Your task to perform on an android device: find which apps use the phone's location Image 0: 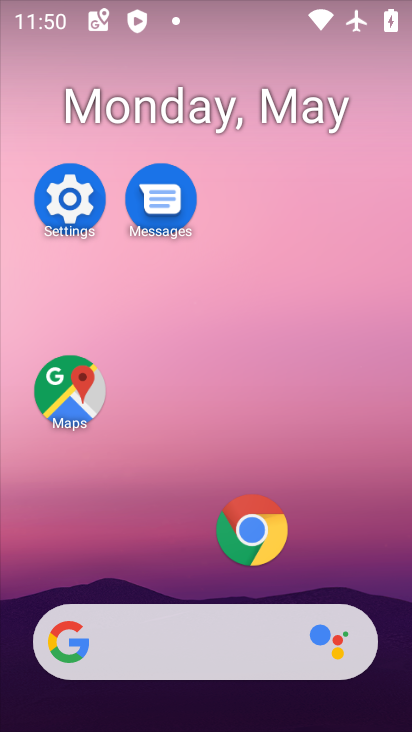
Step 0: click (385, 400)
Your task to perform on an android device: find which apps use the phone's location Image 1: 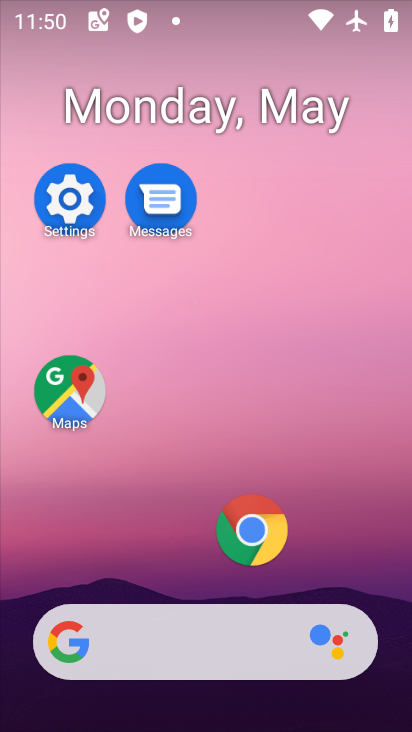
Step 1: drag from (104, 535) to (251, 32)
Your task to perform on an android device: find which apps use the phone's location Image 2: 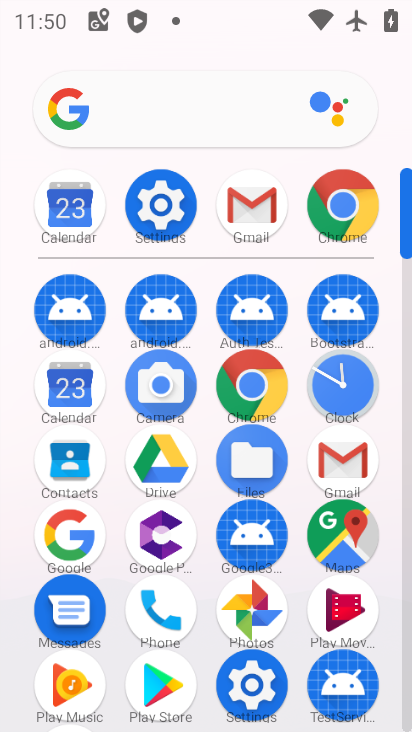
Step 2: click (248, 689)
Your task to perform on an android device: find which apps use the phone's location Image 3: 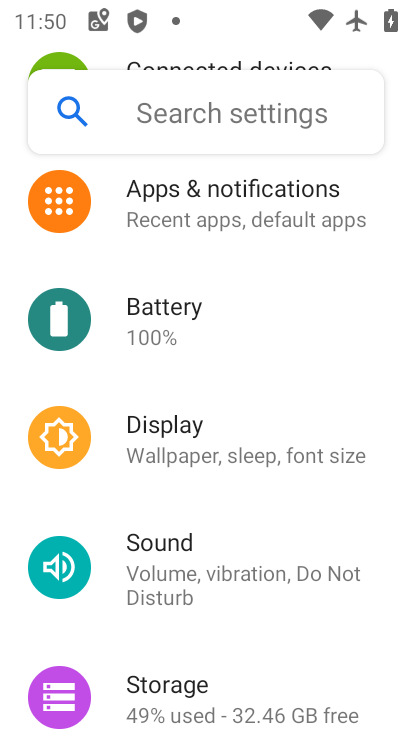
Step 3: drag from (243, 683) to (231, 252)
Your task to perform on an android device: find which apps use the phone's location Image 4: 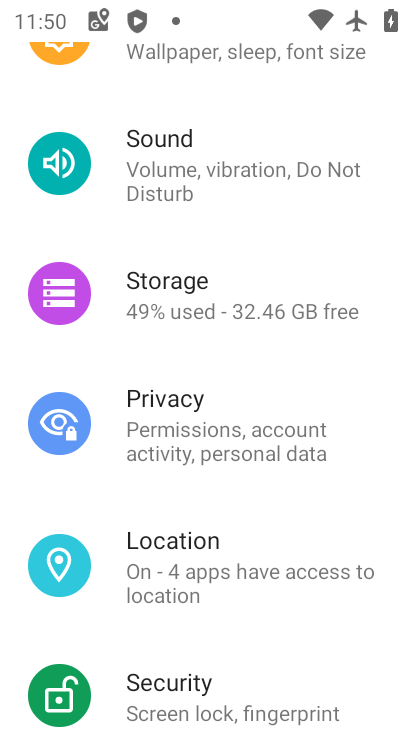
Step 4: click (187, 554)
Your task to perform on an android device: find which apps use the phone's location Image 5: 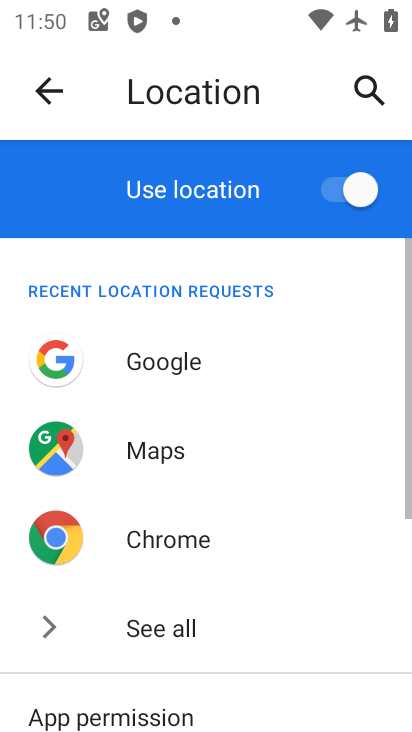
Step 5: drag from (183, 553) to (209, 185)
Your task to perform on an android device: find which apps use the phone's location Image 6: 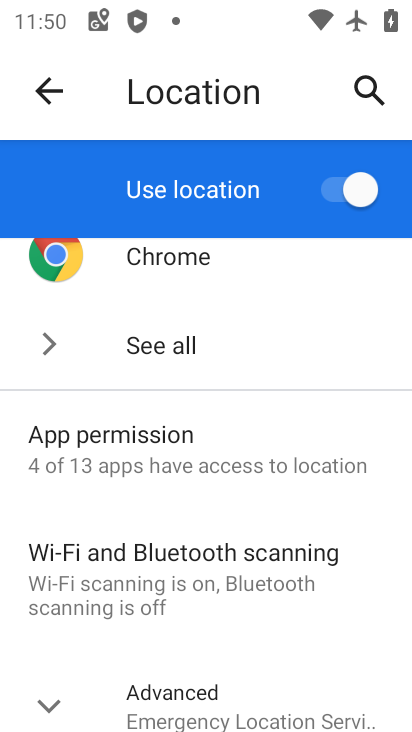
Step 6: click (96, 436)
Your task to perform on an android device: find which apps use the phone's location Image 7: 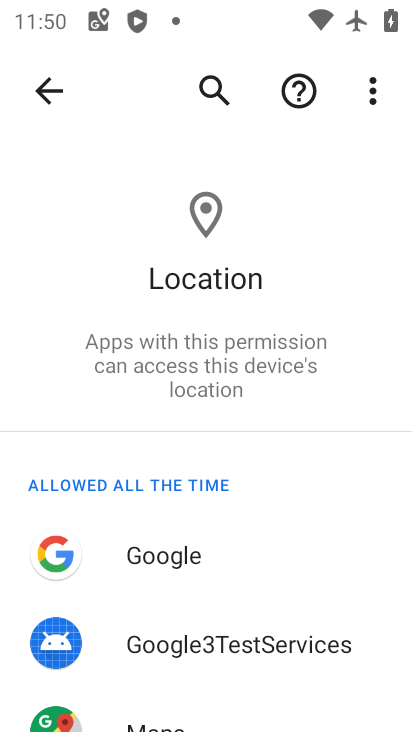
Step 7: task complete